Your task to perform on an android device: What's on my calendar today? Image 0: 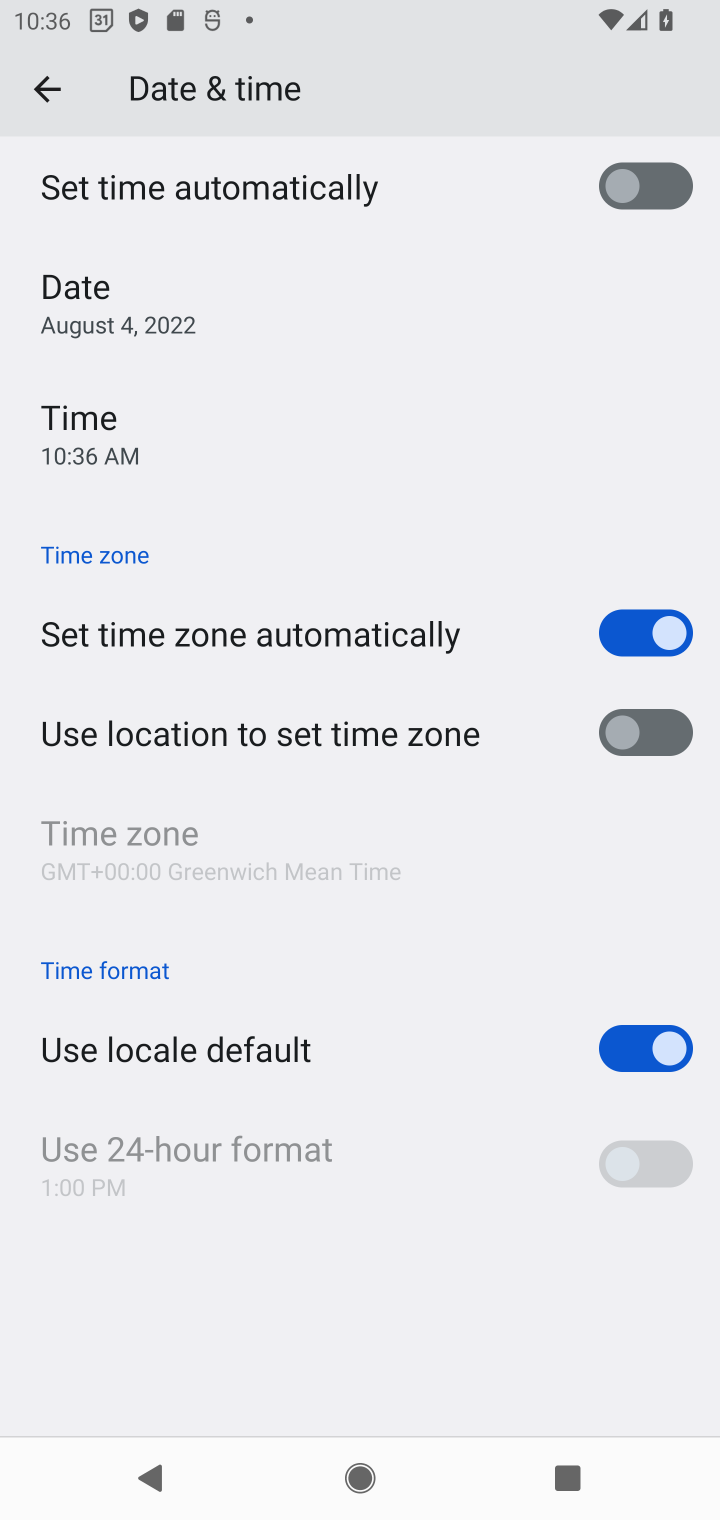
Step 0: press home button
Your task to perform on an android device: What's on my calendar today? Image 1: 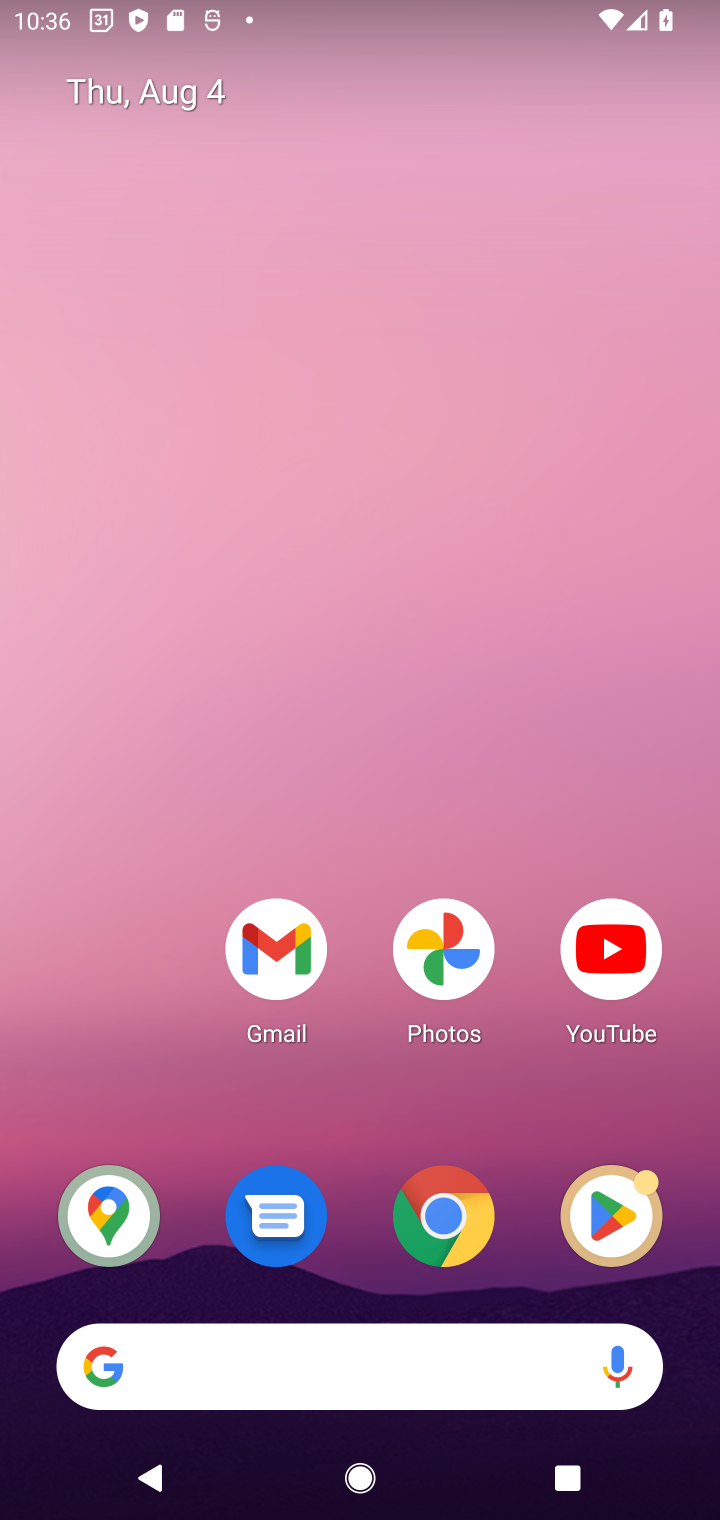
Step 1: drag from (320, 1364) to (535, 100)
Your task to perform on an android device: What's on my calendar today? Image 2: 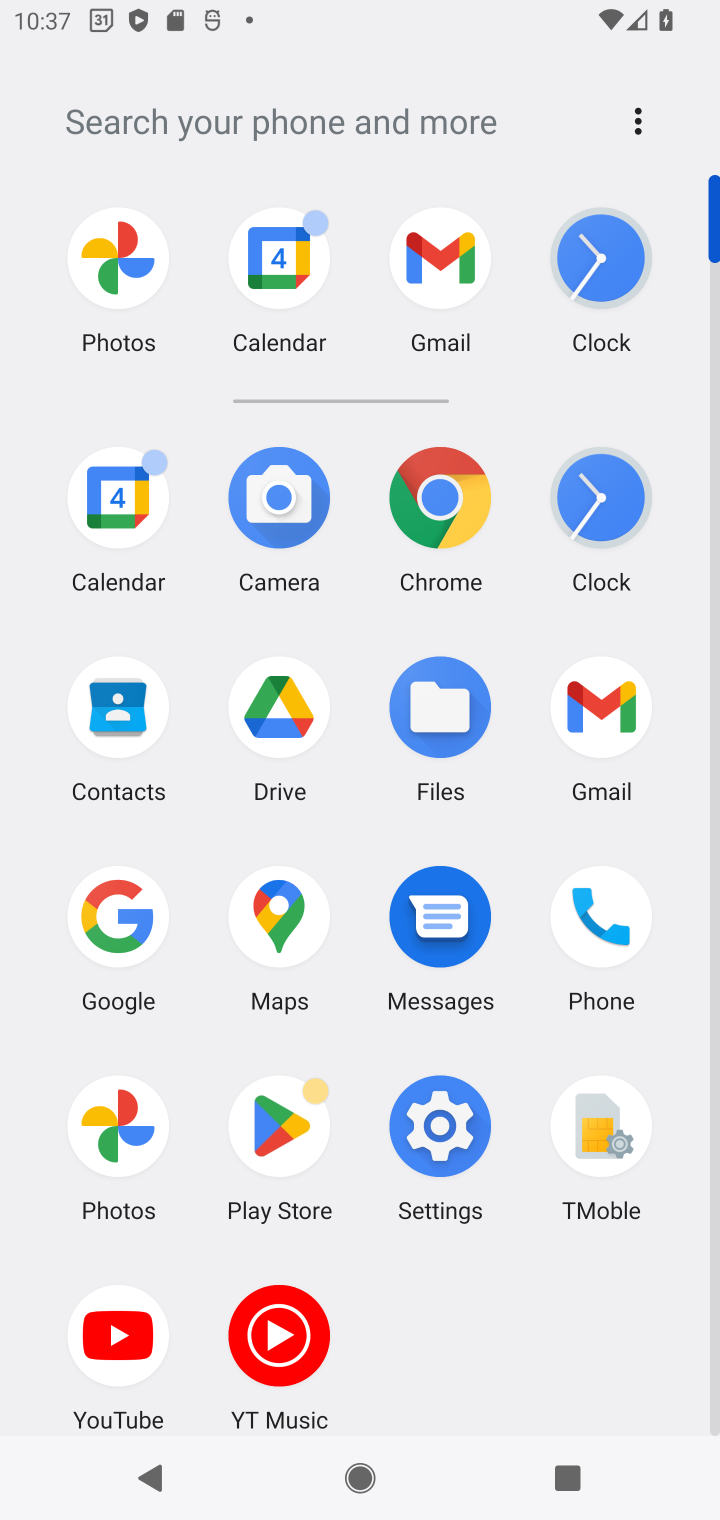
Step 2: click (125, 498)
Your task to perform on an android device: What's on my calendar today? Image 3: 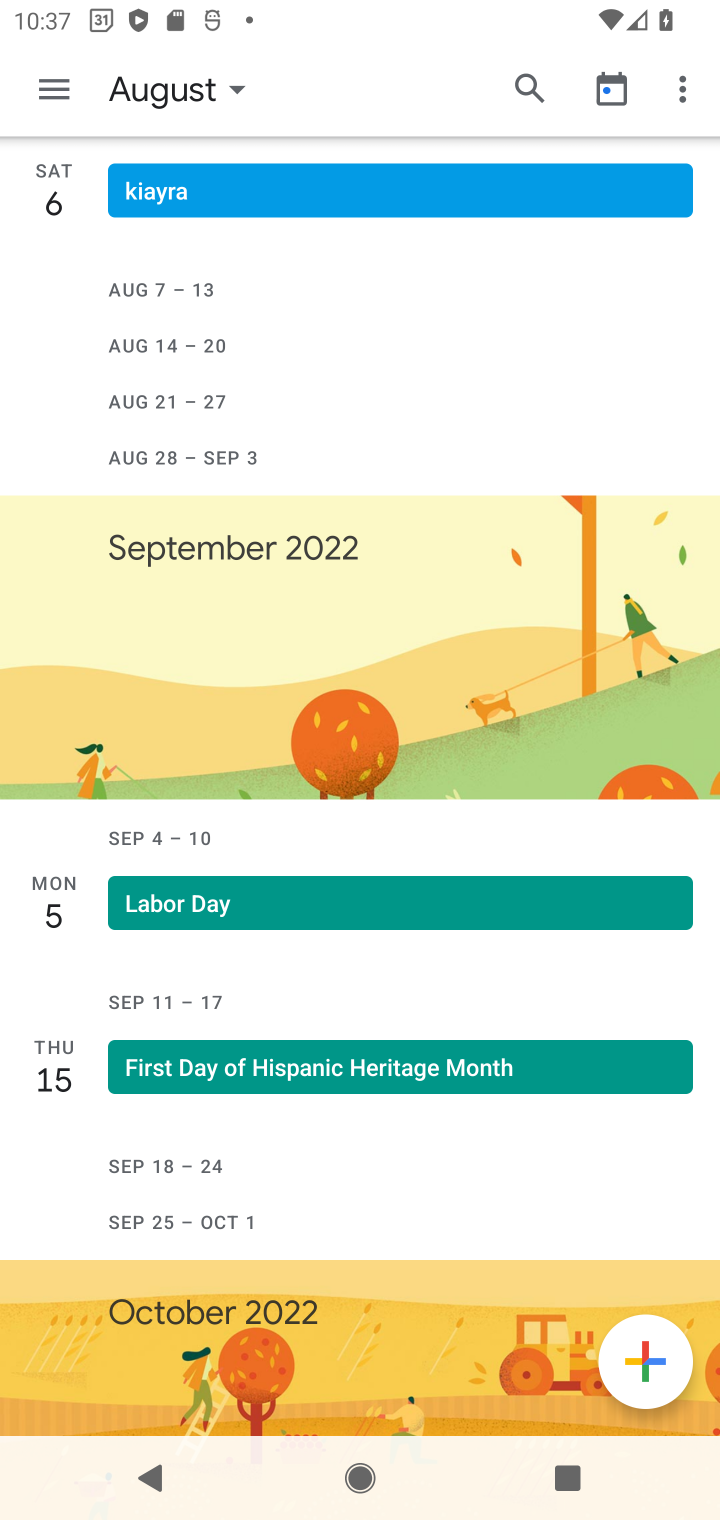
Step 3: click (620, 90)
Your task to perform on an android device: What's on my calendar today? Image 4: 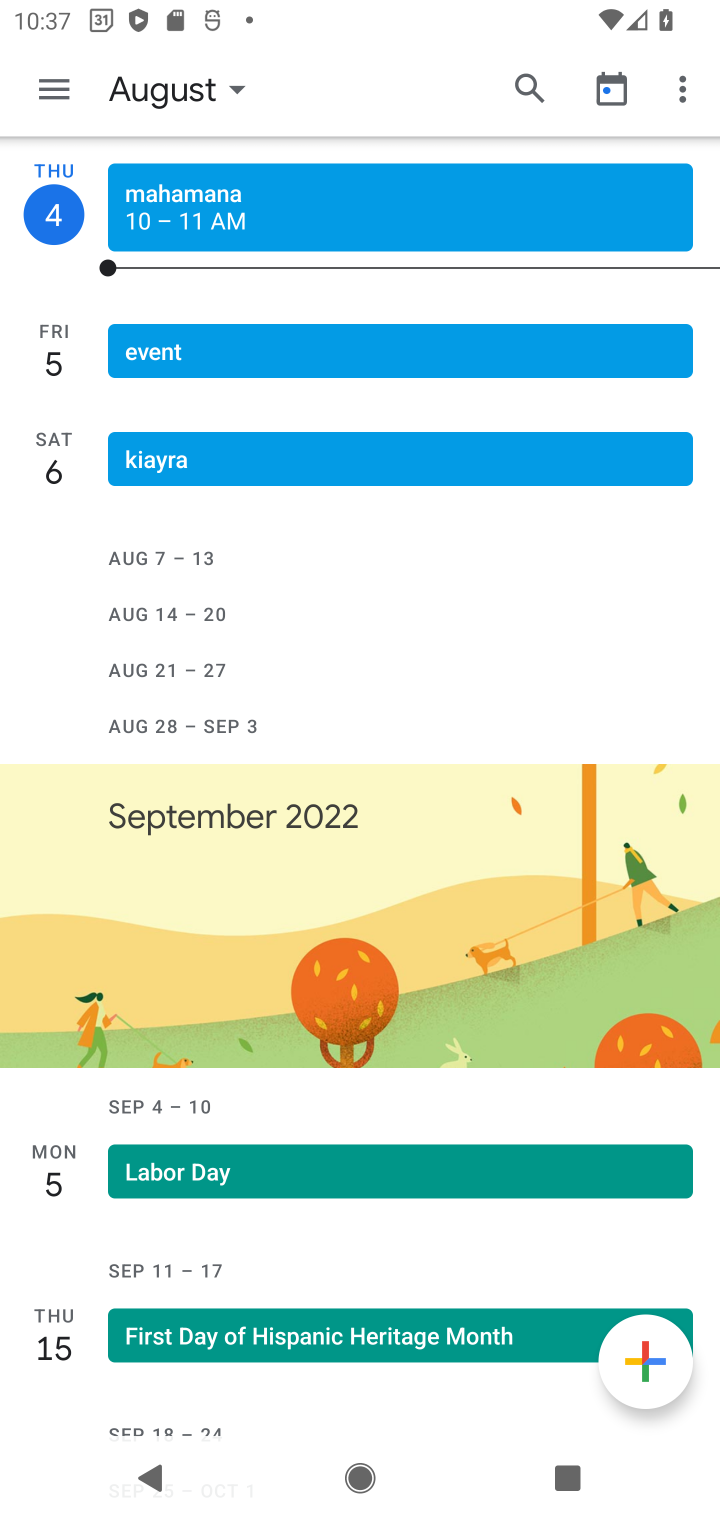
Step 4: click (342, 219)
Your task to perform on an android device: What's on my calendar today? Image 5: 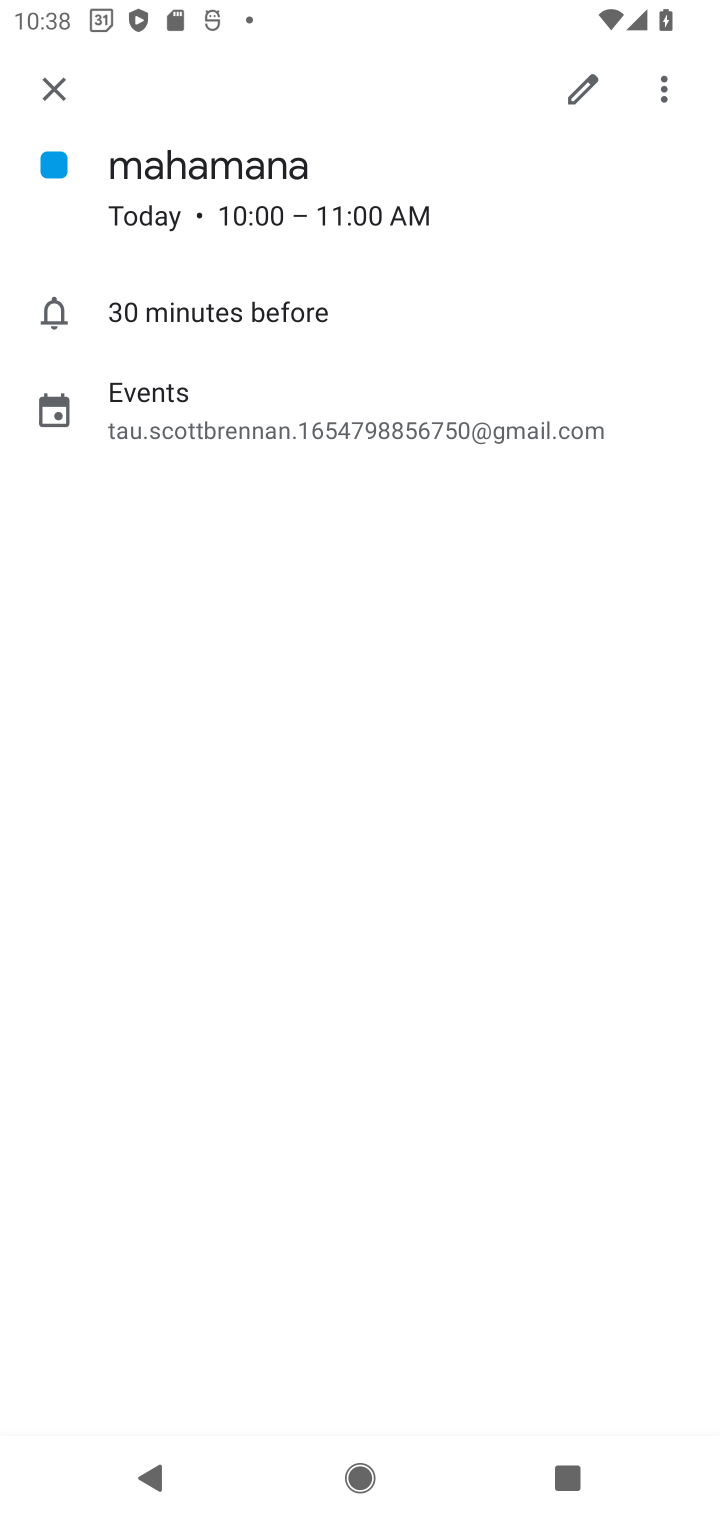
Step 5: task complete